Your task to perform on an android device: Open the web browser Image 0: 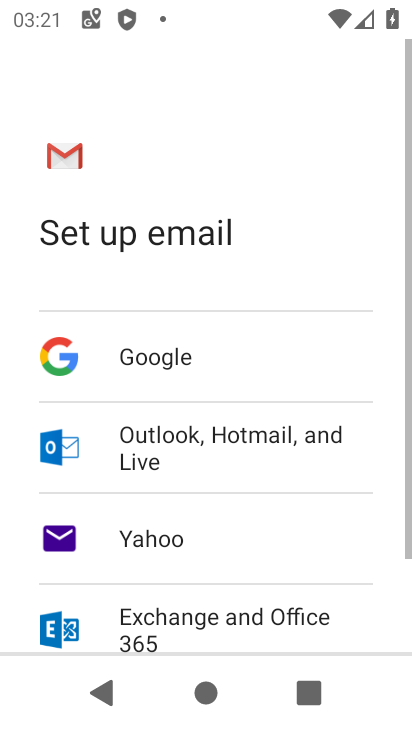
Step 0: press home button
Your task to perform on an android device: Open the web browser Image 1: 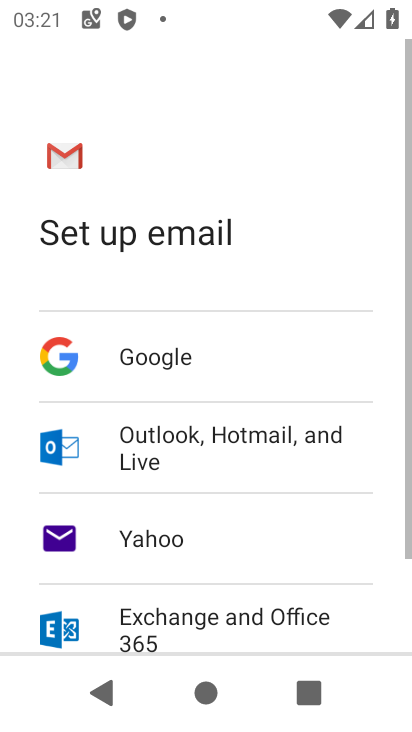
Step 1: press home button
Your task to perform on an android device: Open the web browser Image 2: 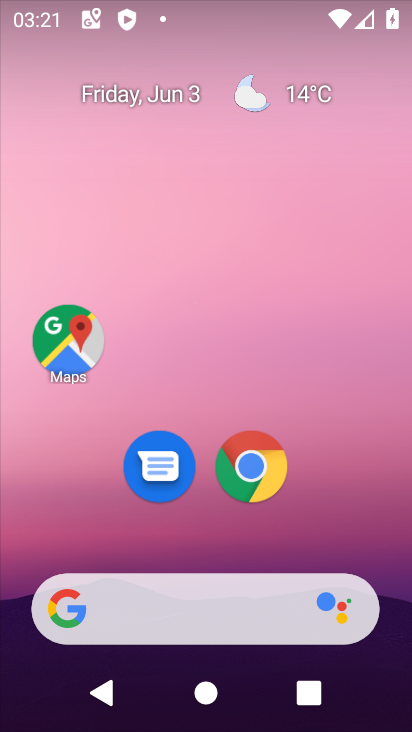
Step 2: click (245, 460)
Your task to perform on an android device: Open the web browser Image 3: 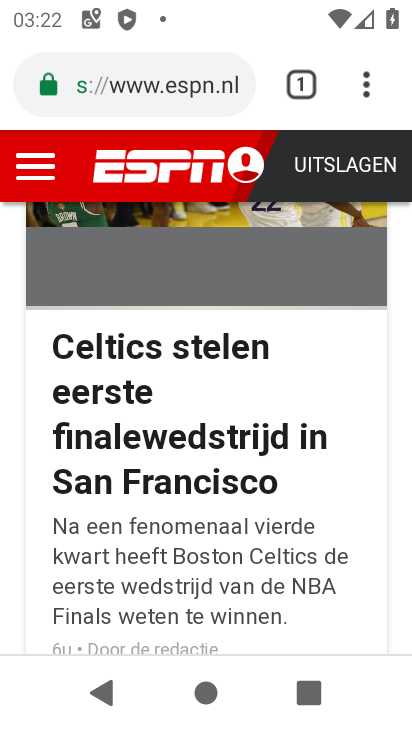
Step 3: click (310, 83)
Your task to perform on an android device: Open the web browser Image 4: 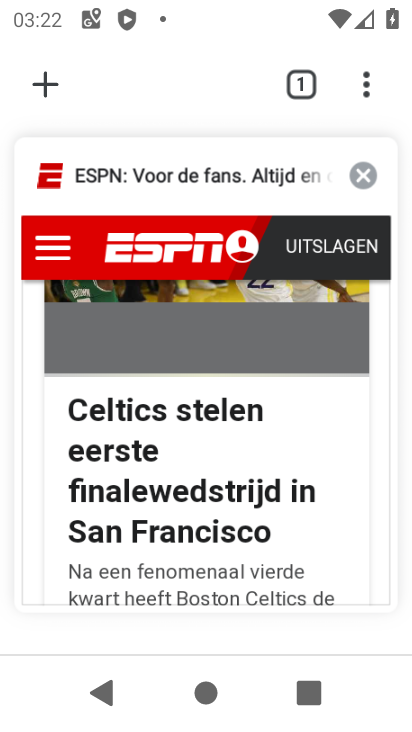
Step 4: click (361, 168)
Your task to perform on an android device: Open the web browser Image 5: 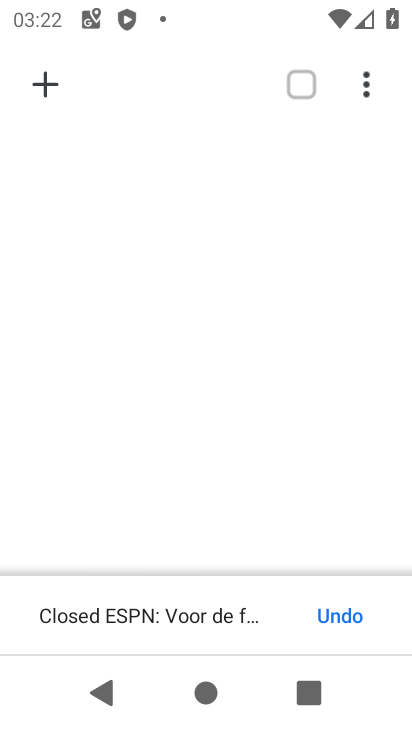
Step 5: click (46, 80)
Your task to perform on an android device: Open the web browser Image 6: 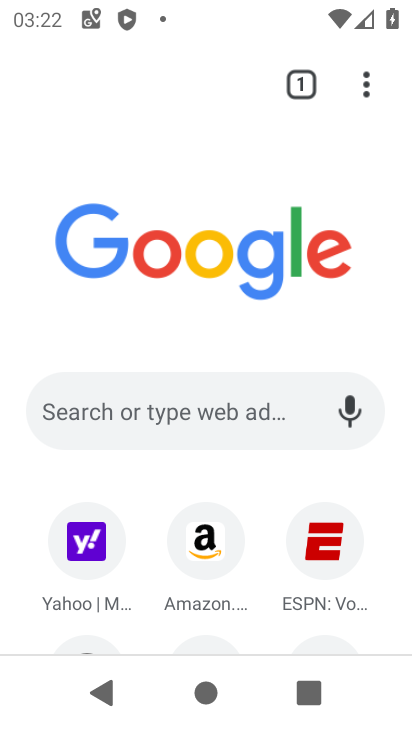
Step 6: task complete